Your task to perform on an android device: change the clock style Image 0: 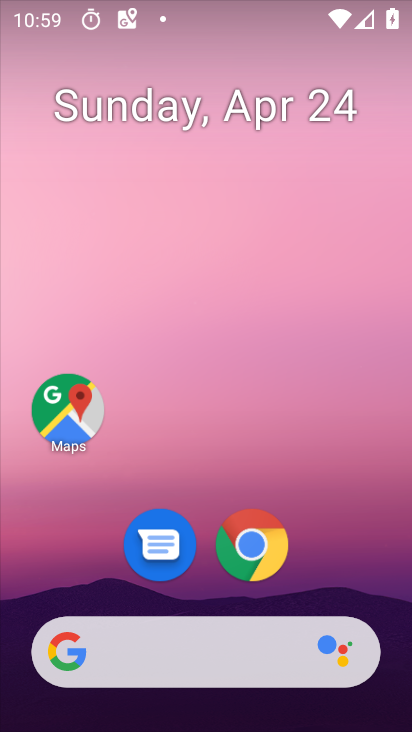
Step 0: drag from (244, 678) to (362, 140)
Your task to perform on an android device: change the clock style Image 1: 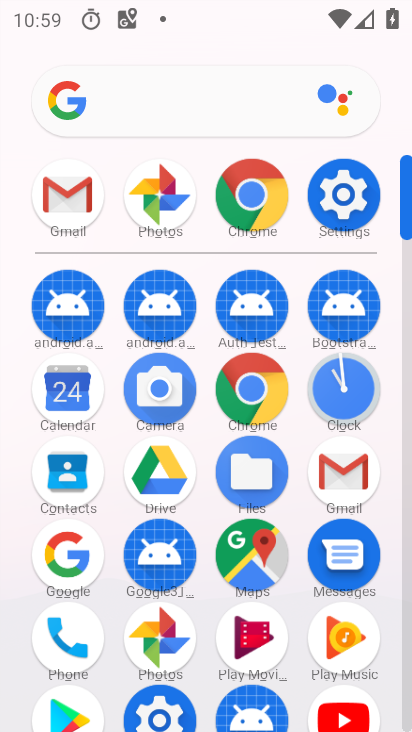
Step 1: click (330, 400)
Your task to perform on an android device: change the clock style Image 2: 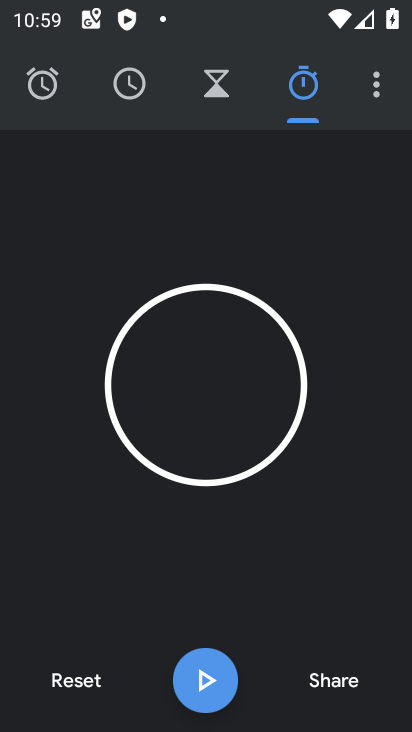
Step 2: click (381, 91)
Your task to perform on an android device: change the clock style Image 3: 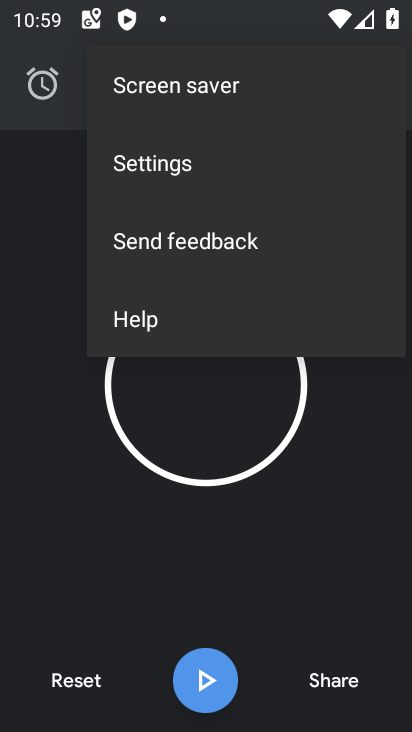
Step 3: click (162, 155)
Your task to perform on an android device: change the clock style Image 4: 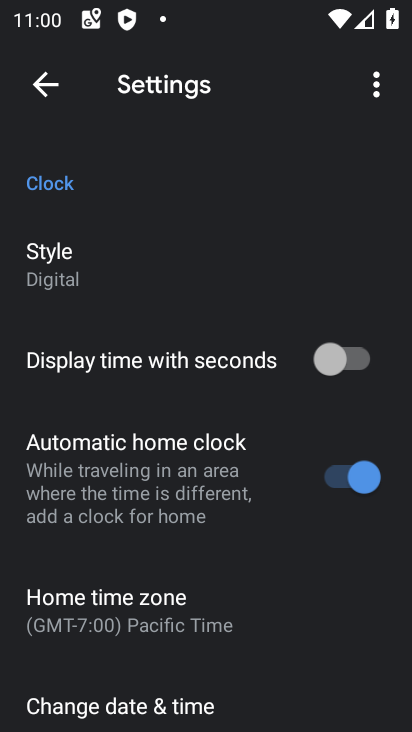
Step 4: click (112, 289)
Your task to perform on an android device: change the clock style Image 5: 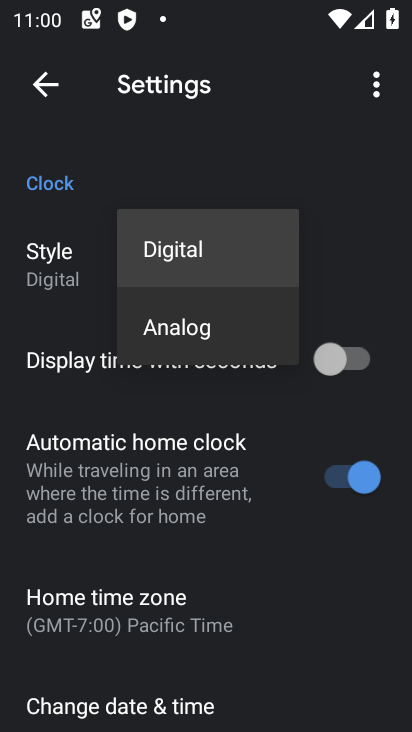
Step 5: click (168, 319)
Your task to perform on an android device: change the clock style Image 6: 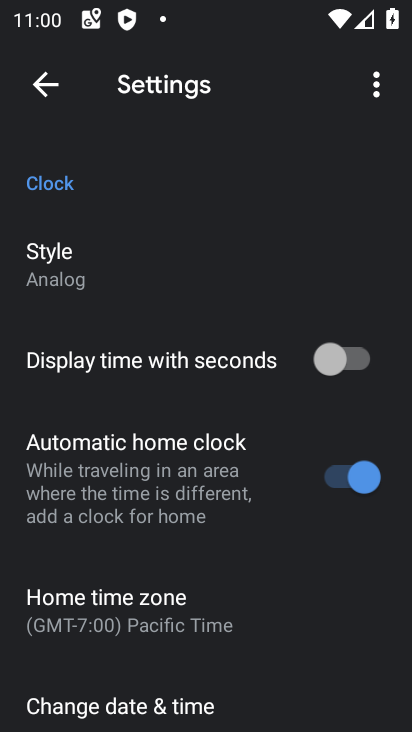
Step 6: task complete